Your task to perform on an android device: Search for flights from NYC to Paris Image 0: 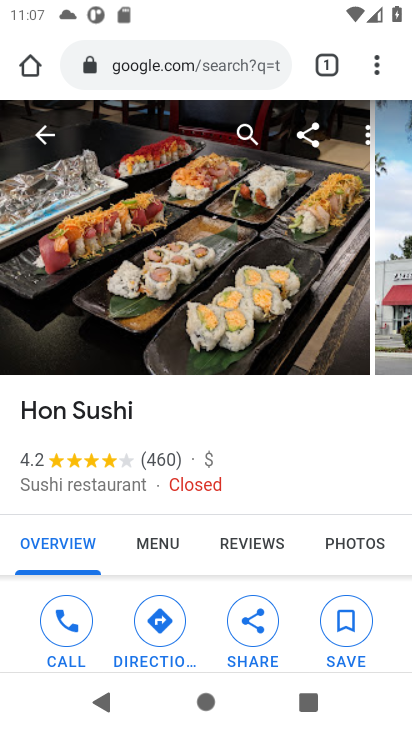
Step 0: press home button
Your task to perform on an android device: Search for flights from NYC to Paris Image 1: 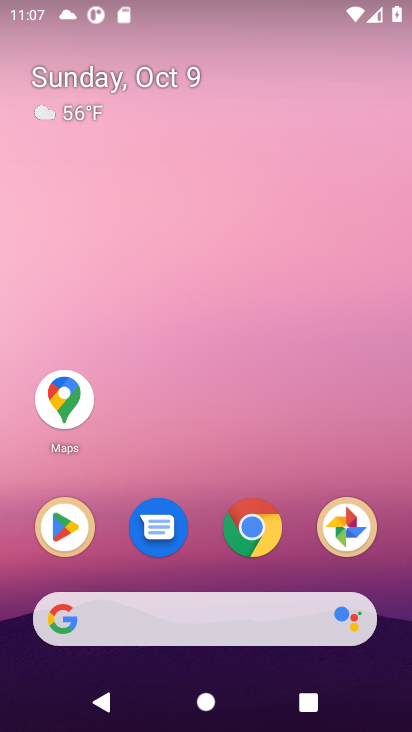
Step 1: click (248, 525)
Your task to perform on an android device: Search for flights from NYC to Paris Image 2: 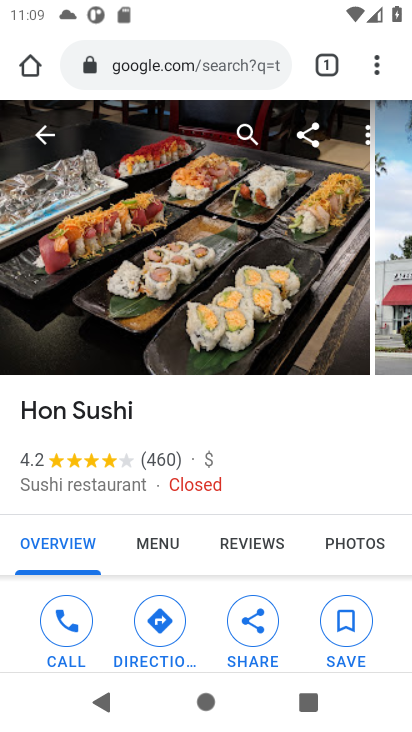
Step 2: click (161, 69)
Your task to perform on an android device: Search for flights from NYC to Paris Image 3: 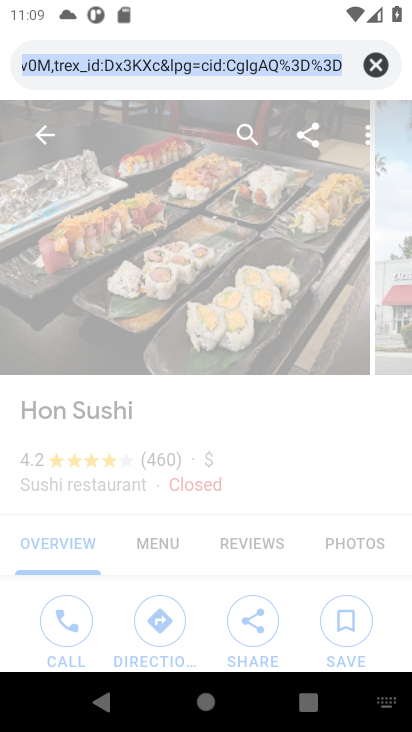
Step 3: click (373, 66)
Your task to perform on an android device: Search for flights from NYC to Paris Image 4: 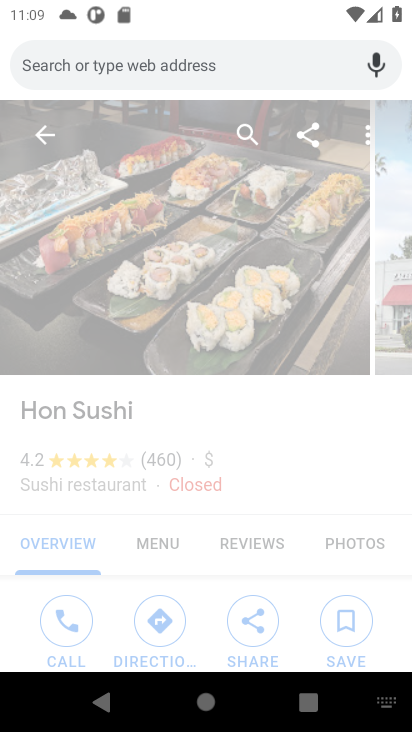
Step 4: type " flights from NYC to Paris"
Your task to perform on an android device: Search for flights from NYC to Paris Image 5: 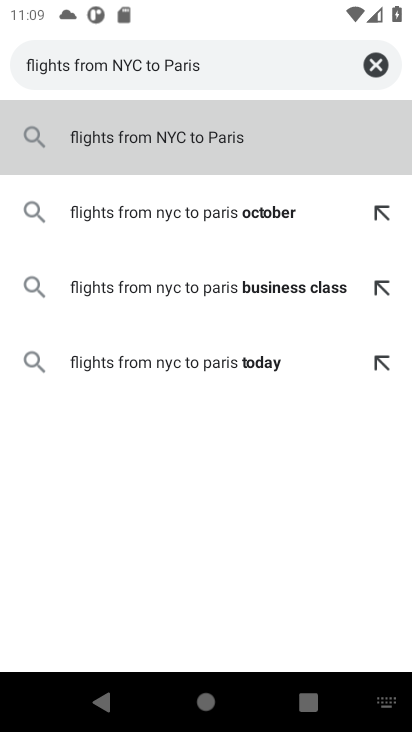
Step 5: click (141, 138)
Your task to perform on an android device: Search for flights from NYC to Paris Image 6: 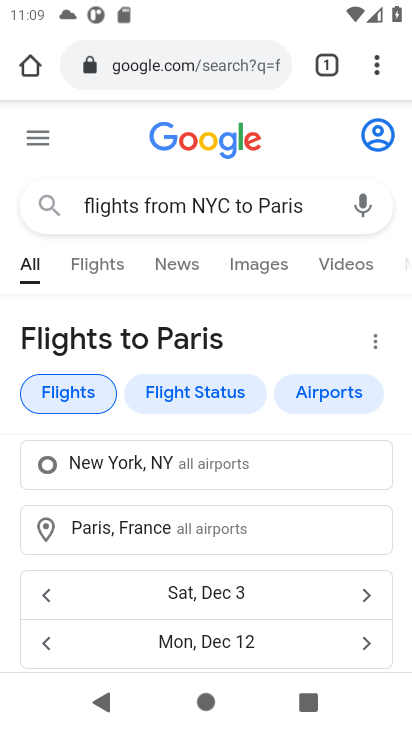
Step 6: task complete